Your task to perform on an android device: Search for seafood restaurants on Google Maps Image 0: 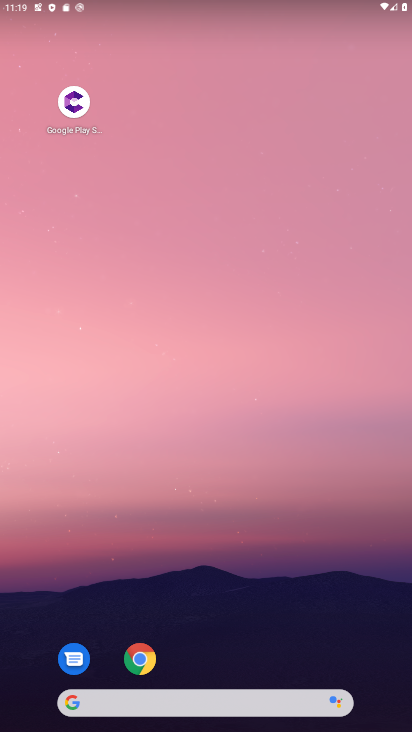
Step 0: drag from (258, 658) to (292, 190)
Your task to perform on an android device: Search for seafood restaurants on Google Maps Image 1: 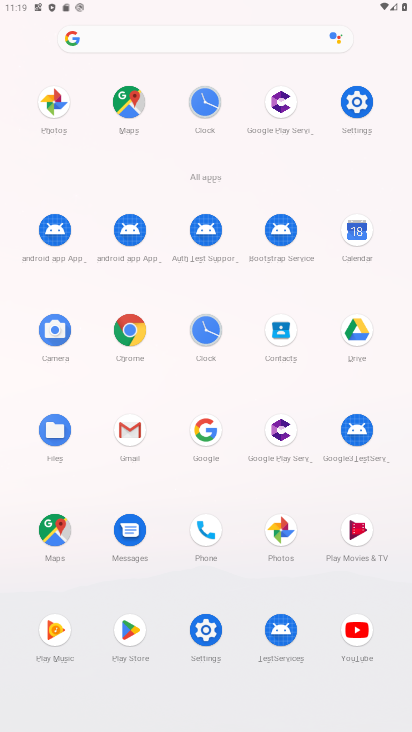
Step 1: click (58, 531)
Your task to perform on an android device: Search for seafood restaurants on Google Maps Image 2: 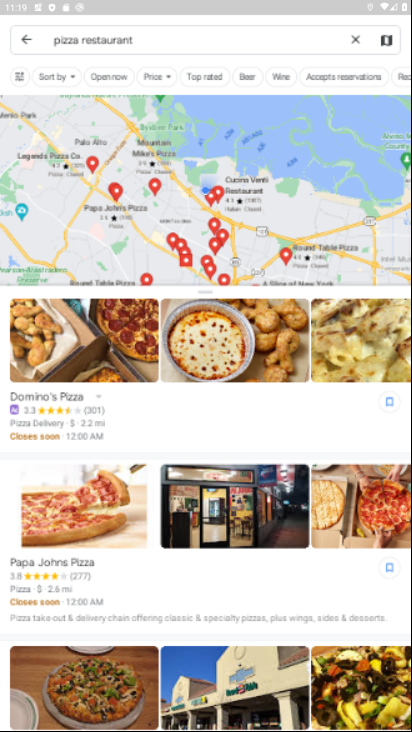
Step 2: click (220, 40)
Your task to perform on an android device: Search for seafood restaurants on Google Maps Image 3: 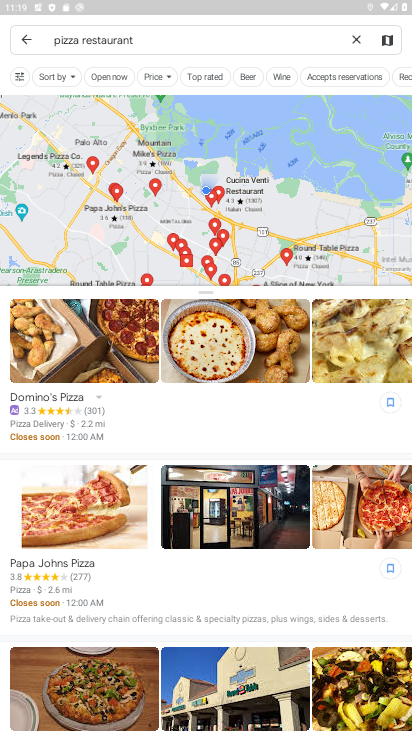
Step 3: click (350, 35)
Your task to perform on an android device: Search for seafood restaurants on Google Maps Image 4: 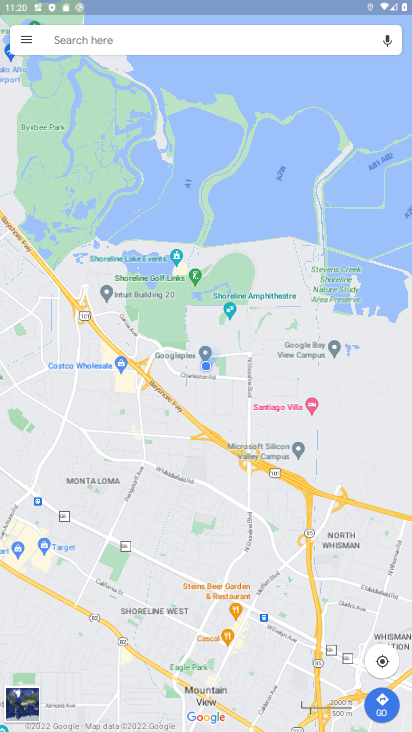
Step 4: click (153, 36)
Your task to perform on an android device: Search for seafood restaurants on Google Maps Image 5: 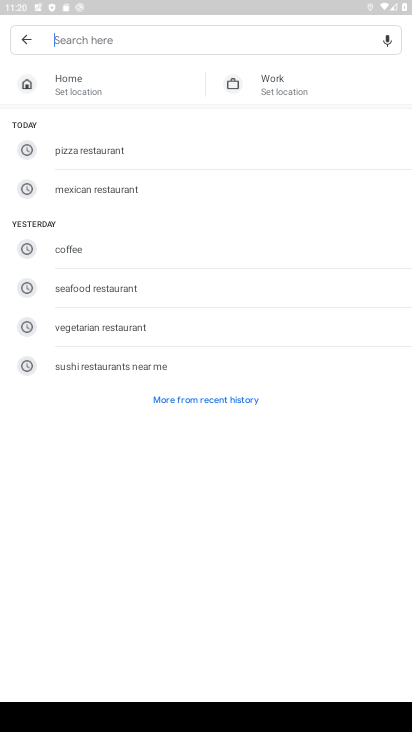
Step 5: click (83, 288)
Your task to perform on an android device: Search for seafood restaurants on Google Maps Image 6: 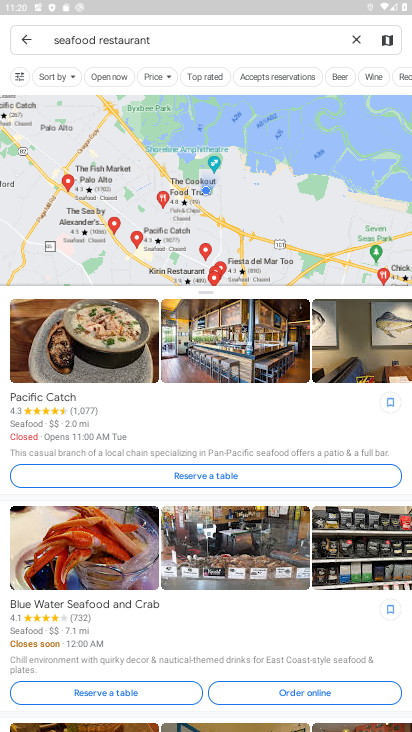
Step 6: task complete